Your task to perform on an android device: Toggle the flashlight Image 0: 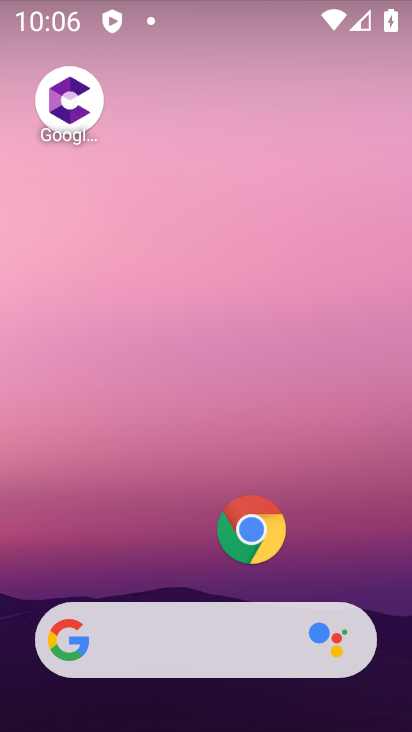
Step 0: drag from (204, 367) to (278, 45)
Your task to perform on an android device: Toggle the flashlight Image 1: 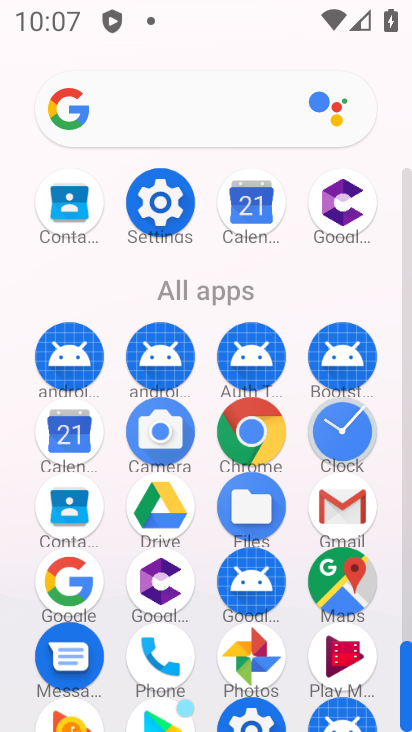
Step 1: click (161, 202)
Your task to perform on an android device: Toggle the flashlight Image 2: 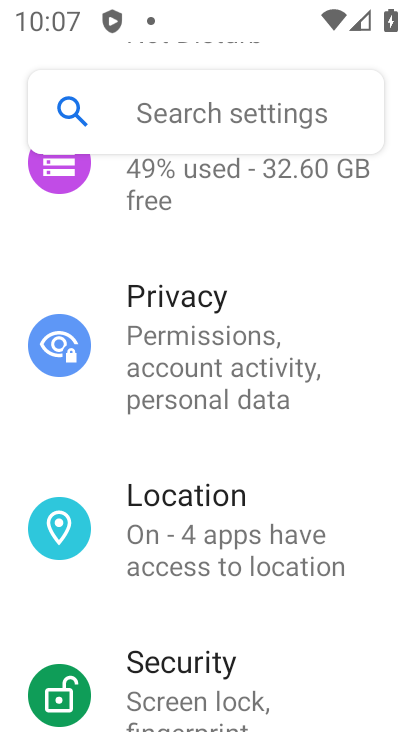
Step 2: drag from (314, 350) to (318, 413)
Your task to perform on an android device: Toggle the flashlight Image 3: 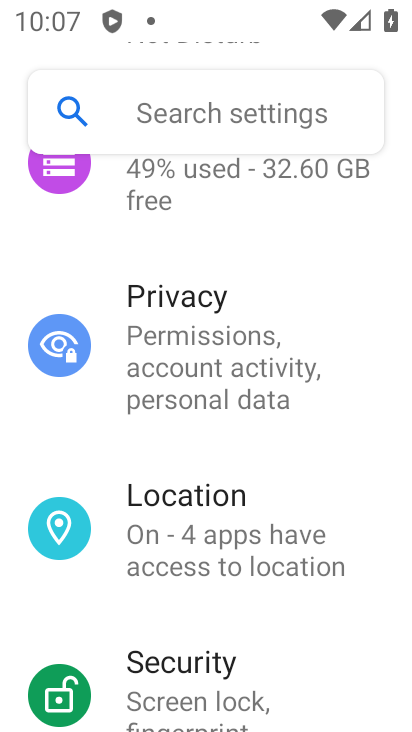
Step 3: drag from (297, 263) to (333, 460)
Your task to perform on an android device: Toggle the flashlight Image 4: 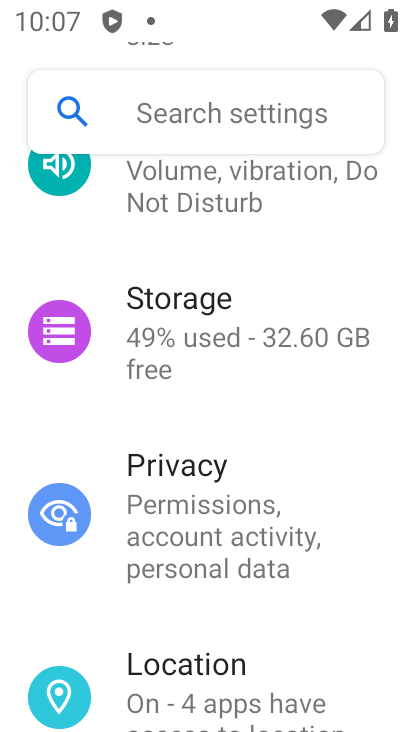
Step 4: drag from (333, 269) to (314, 467)
Your task to perform on an android device: Toggle the flashlight Image 5: 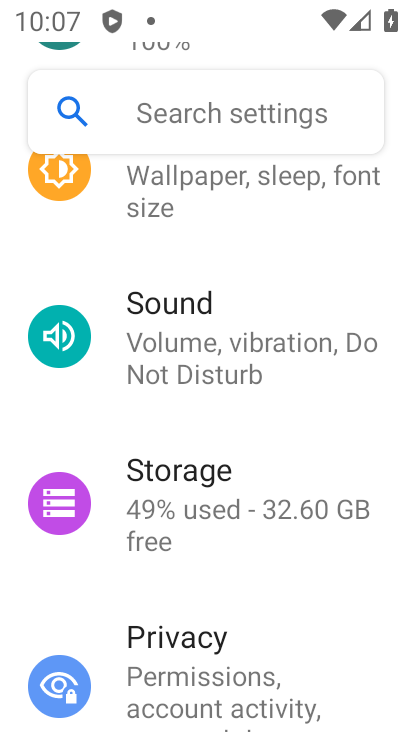
Step 5: drag from (301, 299) to (290, 475)
Your task to perform on an android device: Toggle the flashlight Image 6: 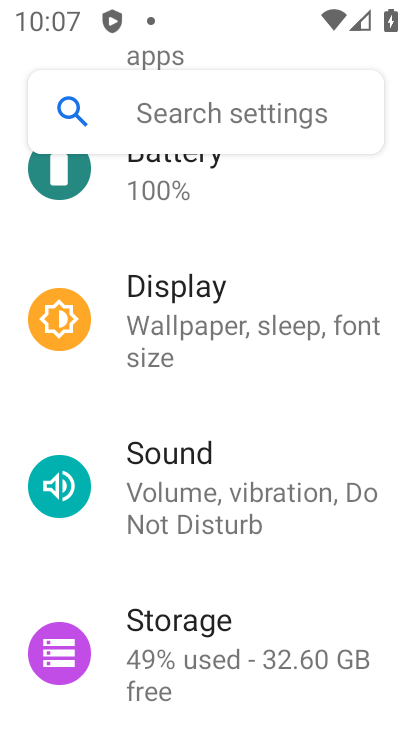
Step 6: click (188, 277)
Your task to perform on an android device: Toggle the flashlight Image 7: 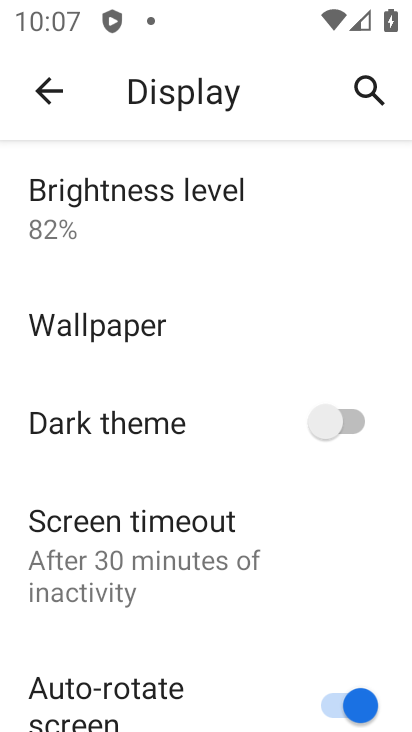
Step 7: drag from (209, 465) to (257, 296)
Your task to perform on an android device: Toggle the flashlight Image 8: 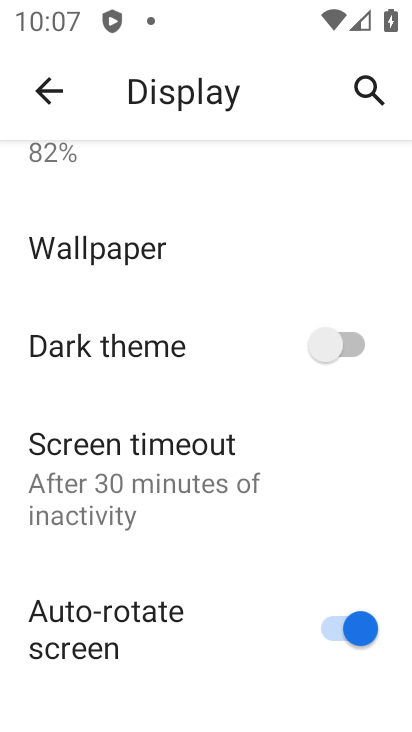
Step 8: drag from (166, 549) to (224, 354)
Your task to perform on an android device: Toggle the flashlight Image 9: 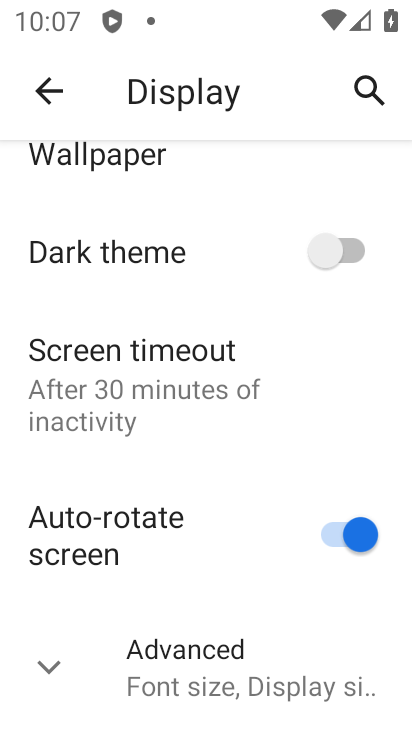
Step 9: drag from (136, 483) to (241, 281)
Your task to perform on an android device: Toggle the flashlight Image 10: 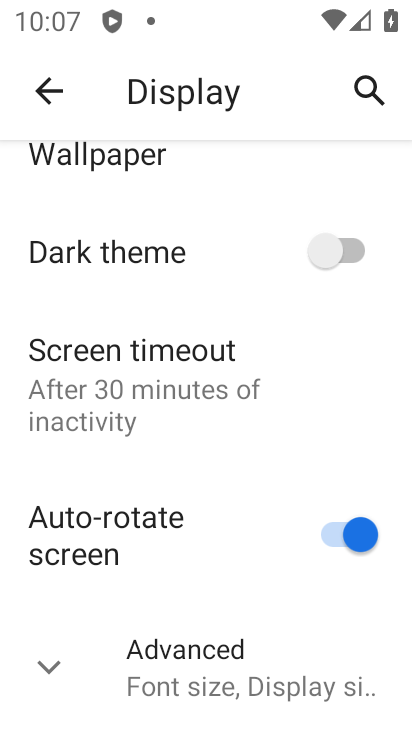
Step 10: click (216, 654)
Your task to perform on an android device: Toggle the flashlight Image 11: 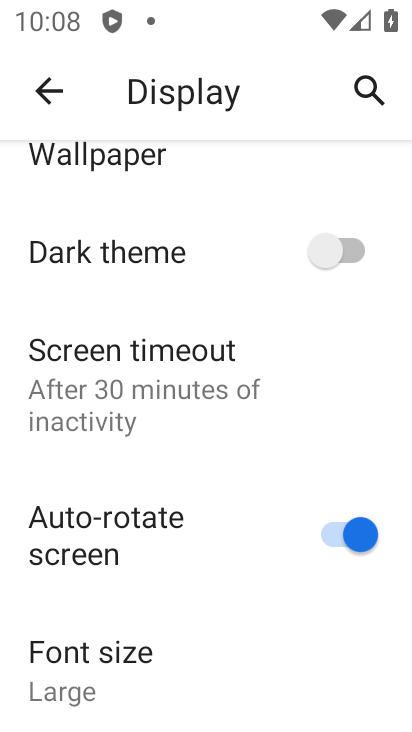
Step 11: click (154, 351)
Your task to perform on an android device: Toggle the flashlight Image 12: 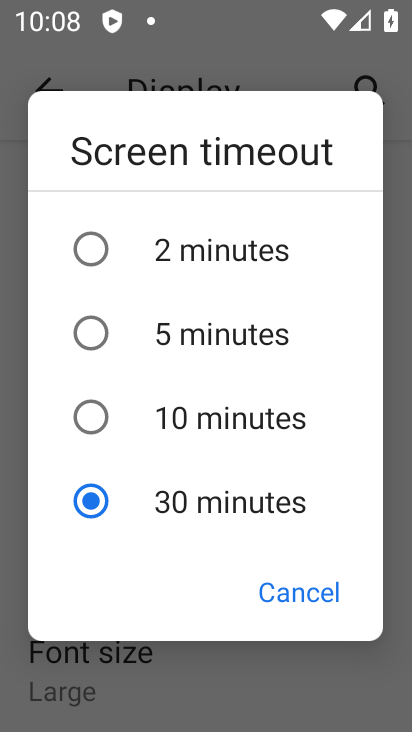
Step 12: click (303, 598)
Your task to perform on an android device: Toggle the flashlight Image 13: 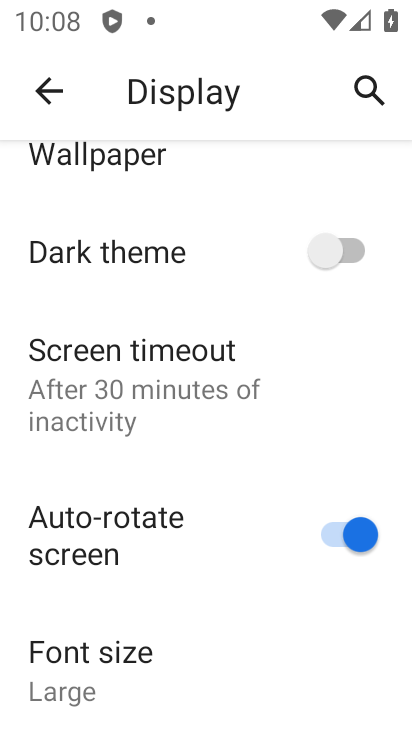
Step 13: task complete